Your task to perform on an android device: Show the shopping cart on newegg.com. Image 0: 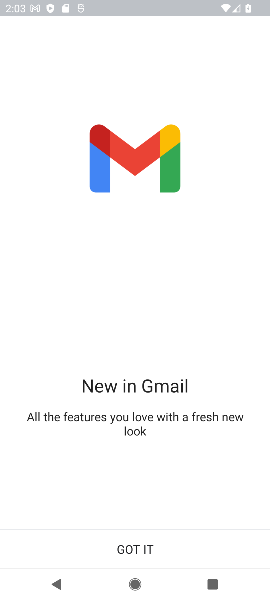
Step 0: press home button
Your task to perform on an android device: Show the shopping cart on newegg.com. Image 1: 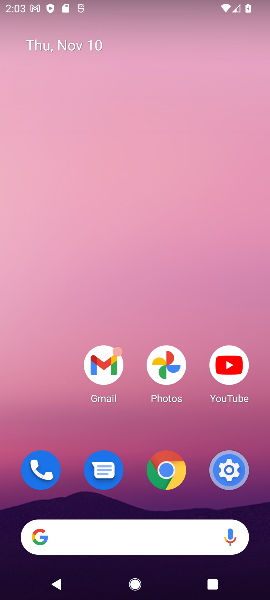
Step 1: click (167, 471)
Your task to perform on an android device: Show the shopping cart on newegg.com. Image 2: 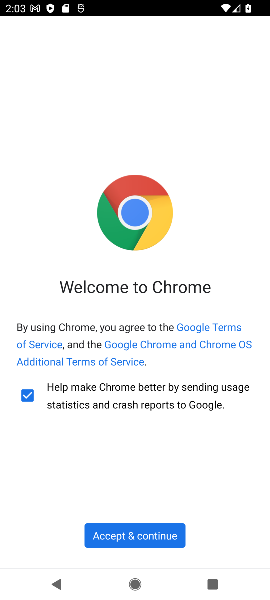
Step 2: click (132, 534)
Your task to perform on an android device: Show the shopping cart on newegg.com. Image 3: 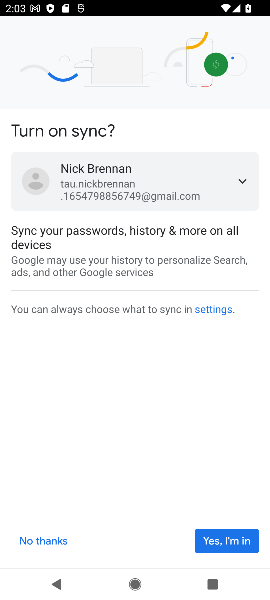
Step 3: click (225, 539)
Your task to perform on an android device: Show the shopping cart on newegg.com. Image 4: 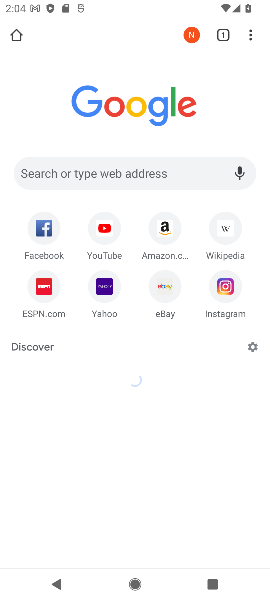
Step 4: click (175, 169)
Your task to perform on an android device: Show the shopping cart on newegg.com. Image 5: 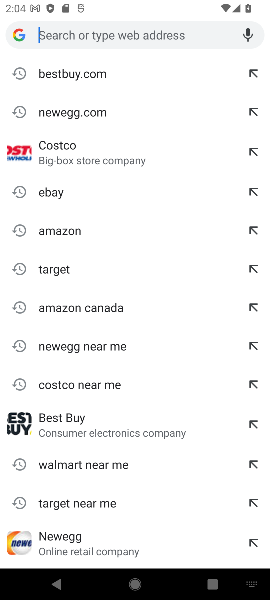
Step 5: type "newegg.com"
Your task to perform on an android device: Show the shopping cart on newegg.com. Image 6: 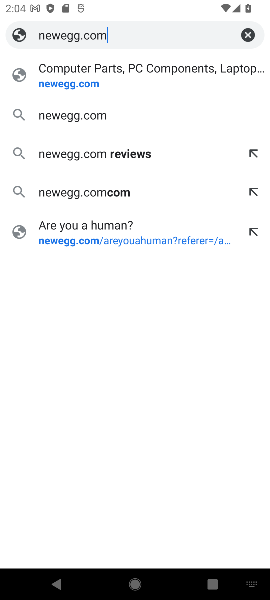
Step 6: click (88, 122)
Your task to perform on an android device: Show the shopping cart on newegg.com. Image 7: 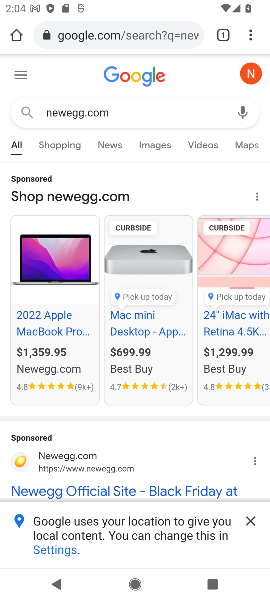
Step 7: drag from (124, 467) to (47, 215)
Your task to perform on an android device: Show the shopping cart on newegg.com. Image 8: 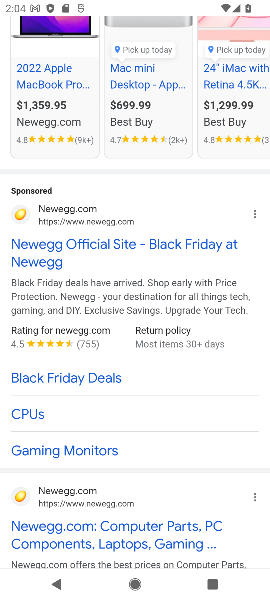
Step 8: click (102, 506)
Your task to perform on an android device: Show the shopping cart on newegg.com. Image 9: 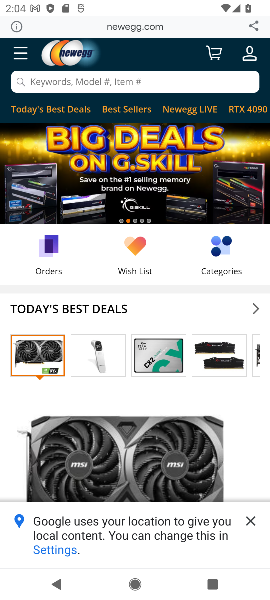
Step 9: click (213, 57)
Your task to perform on an android device: Show the shopping cart on newegg.com. Image 10: 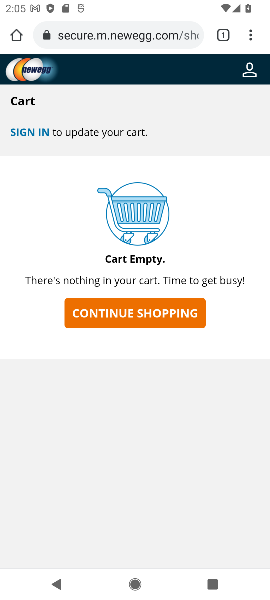
Step 10: task complete